Your task to perform on an android device: What is the news today? Image 0: 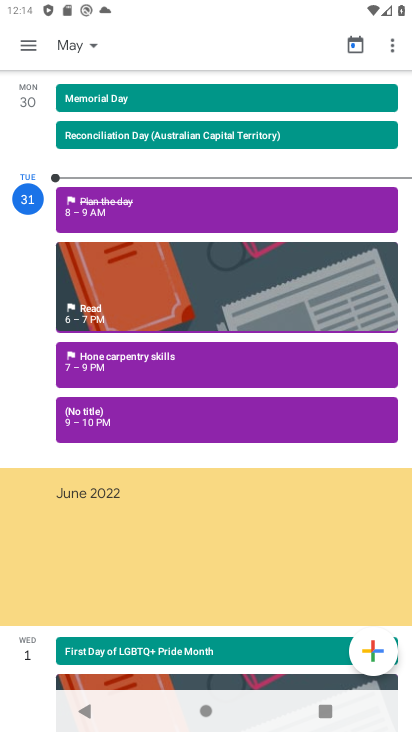
Step 0: press home button
Your task to perform on an android device: What is the news today? Image 1: 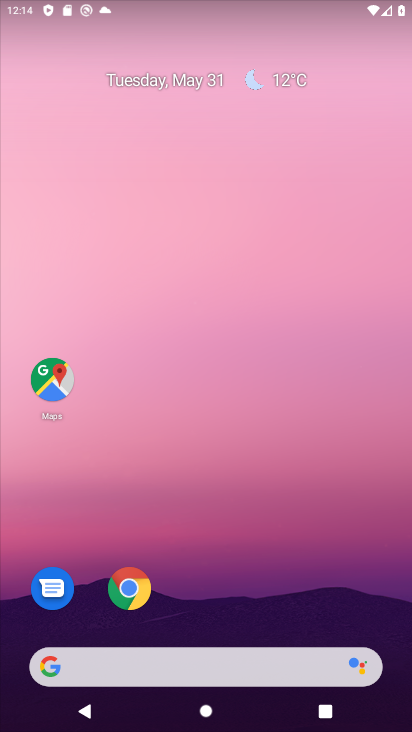
Step 1: task complete